Your task to perform on an android device: see tabs open on other devices in the chrome app Image 0: 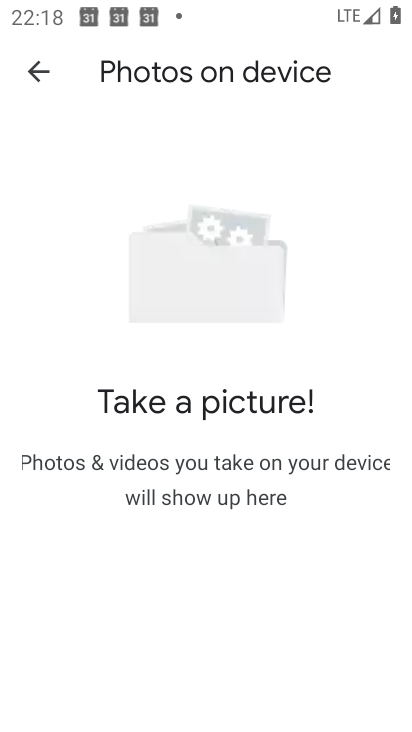
Step 0: press home button
Your task to perform on an android device: see tabs open on other devices in the chrome app Image 1: 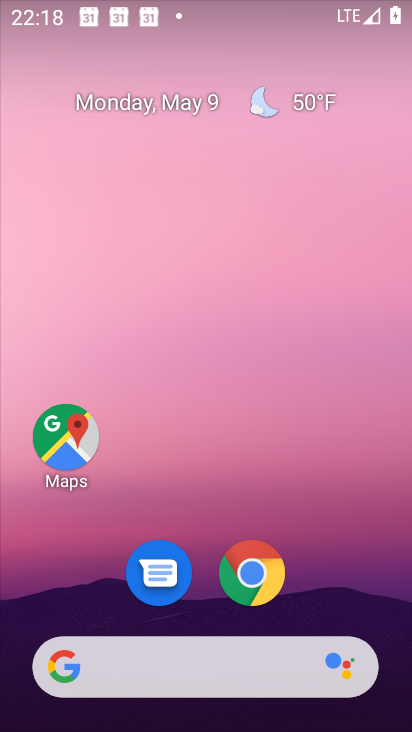
Step 1: click (244, 578)
Your task to perform on an android device: see tabs open on other devices in the chrome app Image 2: 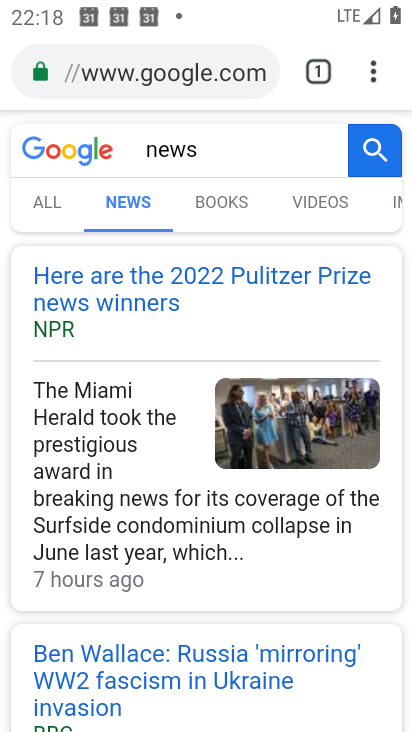
Step 2: task complete